Your task to perform on an android device: open a new tab in the chrome app Image 0: 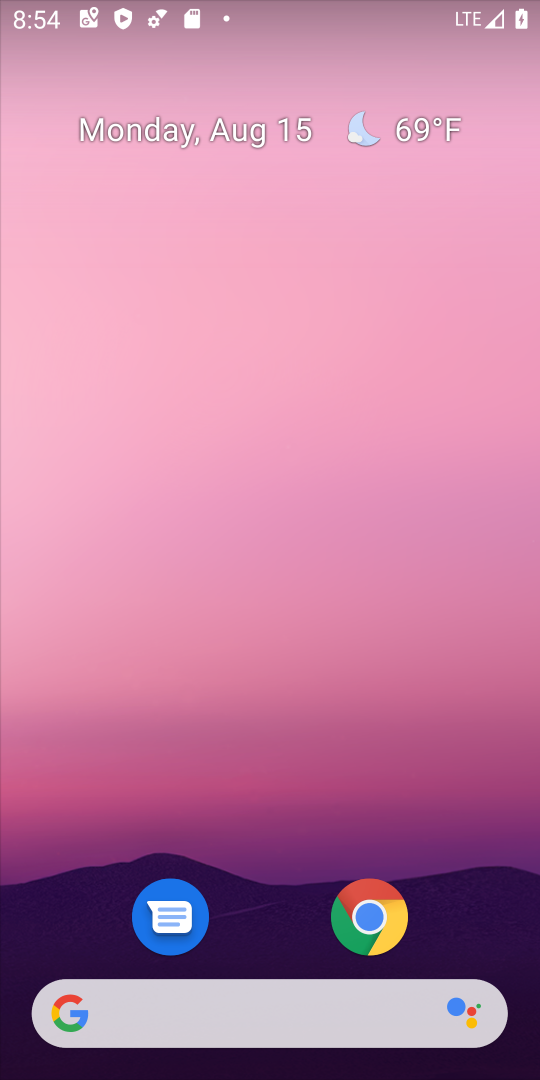
Step 0: click (369, 898)
Your task to perform on an android device: open a new tab in the chrome app Image 1: 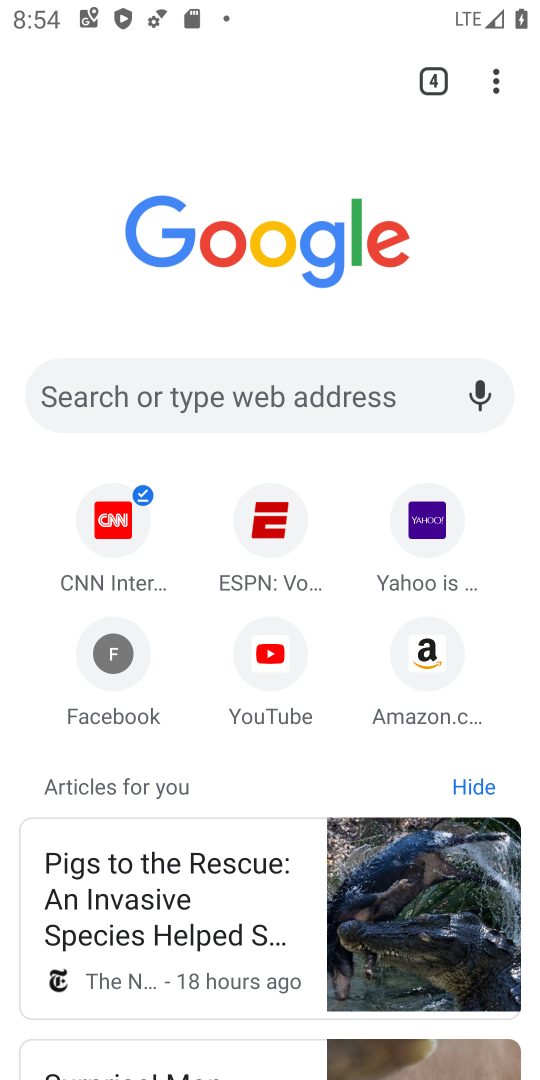
Step 1: click (500, 88)
Your task to perform on an android device: open a new tab in the chrome app Image 2: 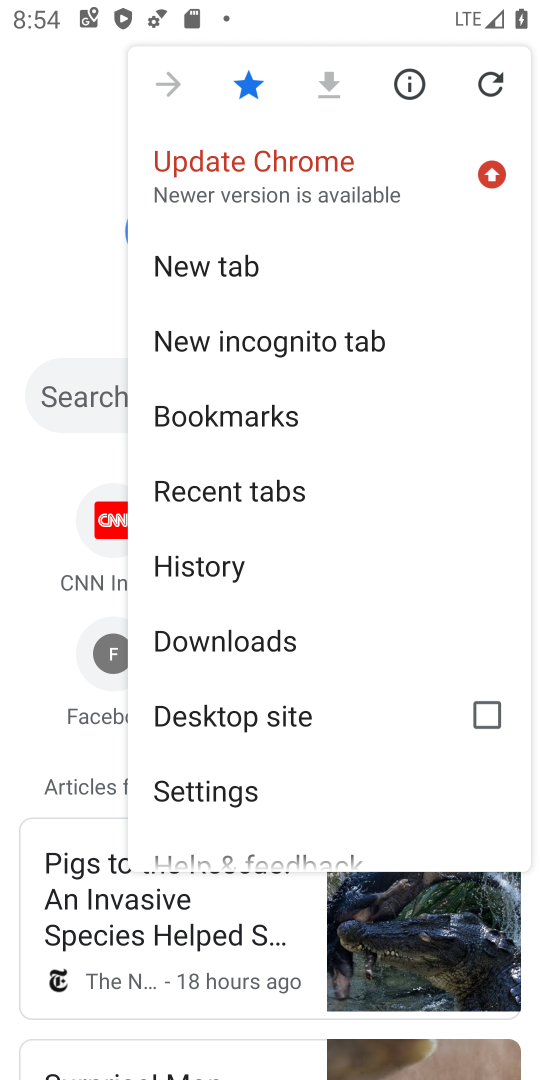
Step 2: click (294, 260)
Your task to perform on an android device: open a new tab in the chrome app Image 3: 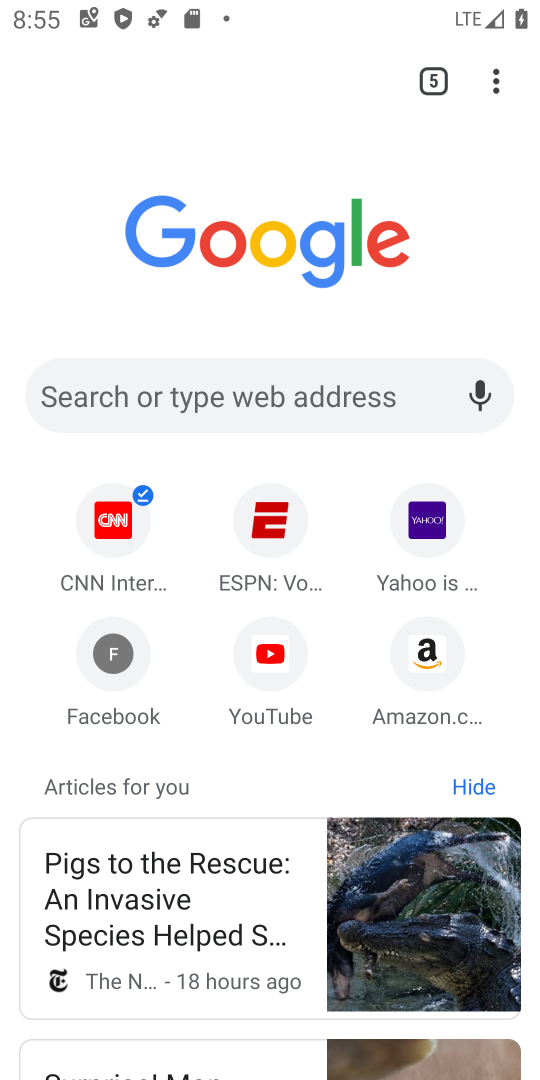
Step 3: task complete